Your task to perform on an android device: Go to privacy settings Image 0: 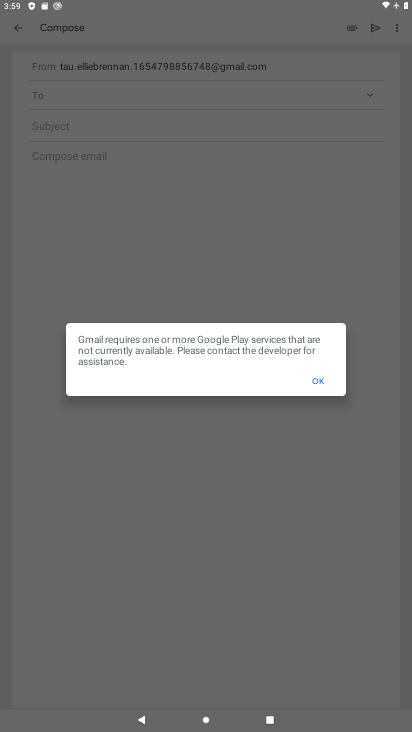
Step 0: press home button
Your task to perform on an android device: Go to privacy settings Image 1: 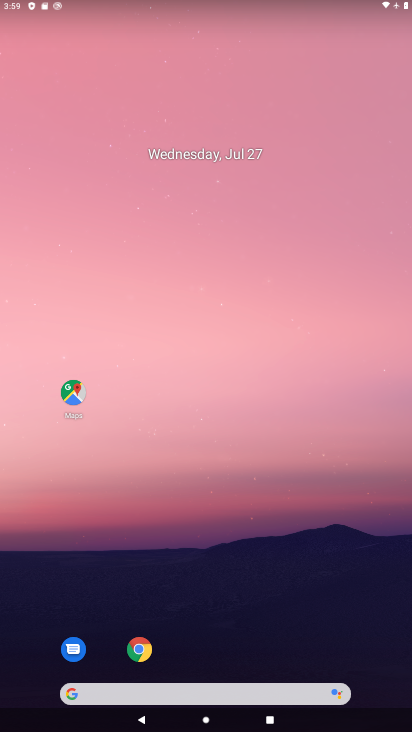
Step 1: drag from (291, 637) to (287, 226)
Your task to perform on an android device: Go to privacy settings Image 2: 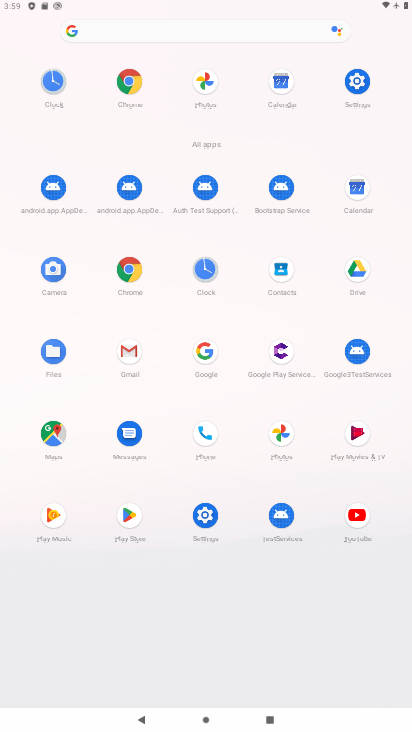
Step 2: click (354, 73)
Your task to perform on an android device: Go to privacy settings Image 3: 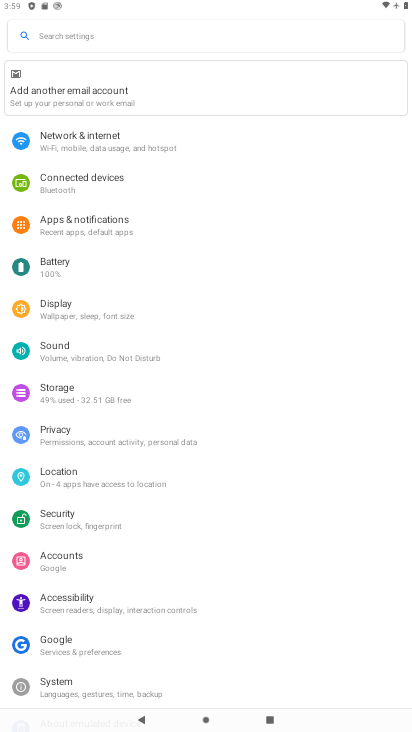
Step 3: click (99, 428)
Your task to perform on an android device: Go to privacy settings Image 4: 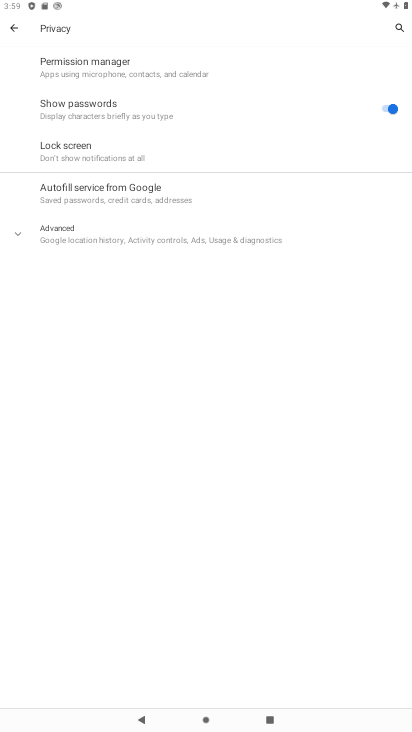
Step 4: task complete